Your task to perform on an android device: turn on bluetooth scan Image 0: 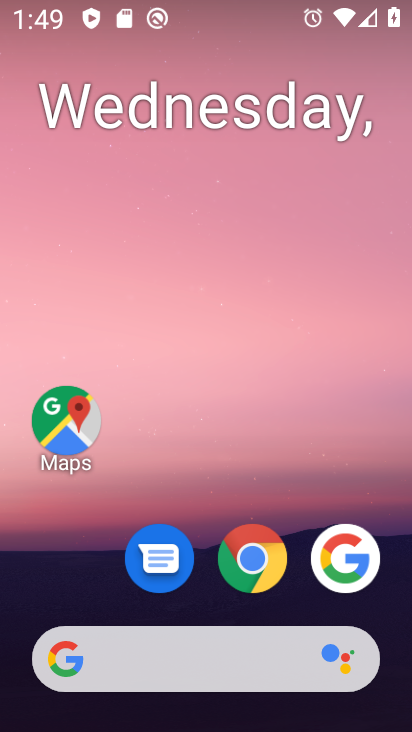
Step 0: drag from (383, 506) to (250, 32)
Your task to perform on an android device: turn on bluetooth scan Image 1: 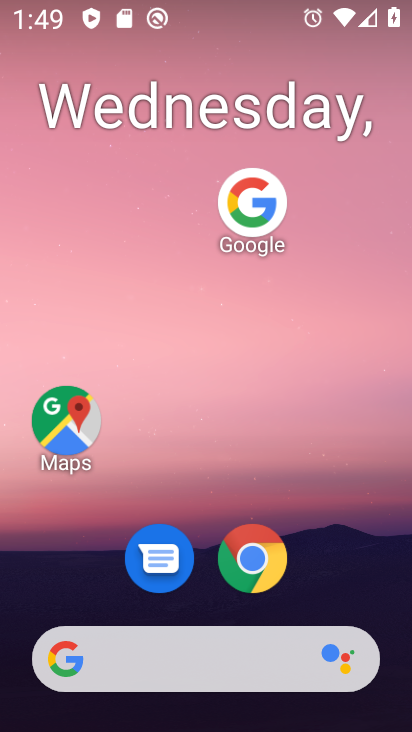
Step 1: drag from (390, 557) to (358, 60)
Your task to perform on an android device: turn on bluetooth scan Image 2: 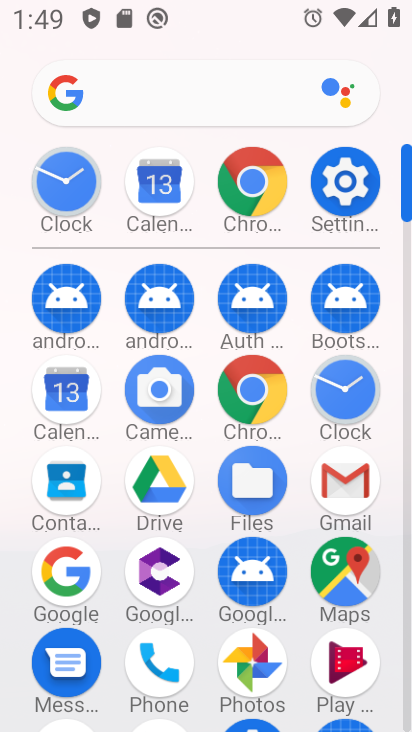
Step 2: click (335, 195)
Your task to perform on an android device: turn on bluetooth scan Image 3: 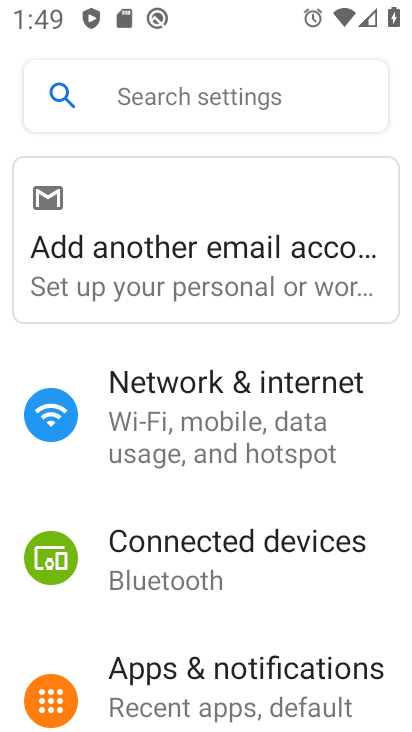
Step 3: drag from (400, 611) to (378, 339)
Your task to perform on an android device: turn on bluetooth scan Image 4: 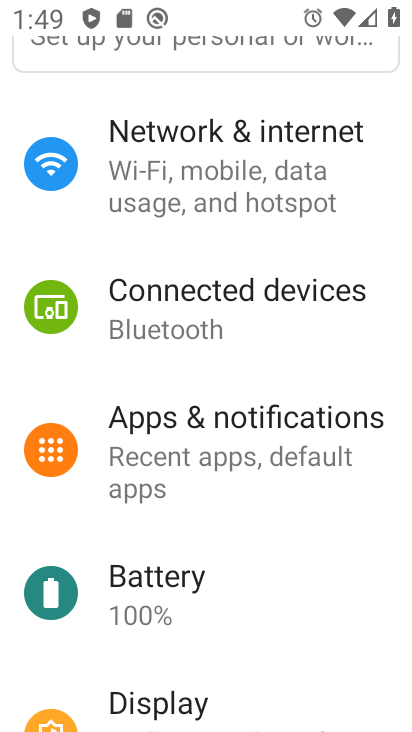
Step 4: drag from (396, 708) to (322, 245)
Your task to perform on an android device: turn on bluetooth scan Image 5: 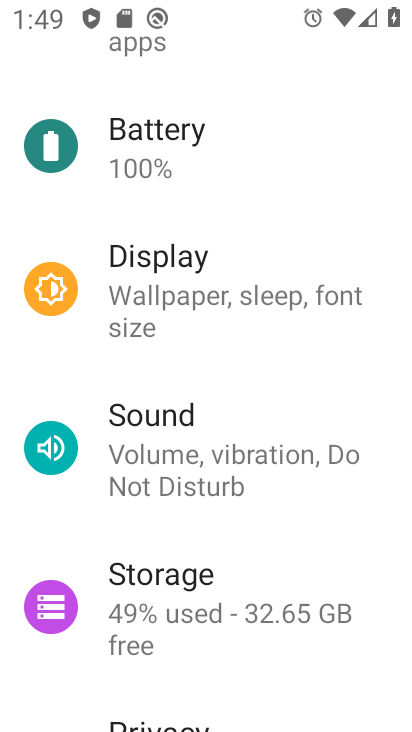
Step 5: drag from (378, 558) to (345, 181)
Your task to perform on an android device: turn on bluetooth scan Image 6: 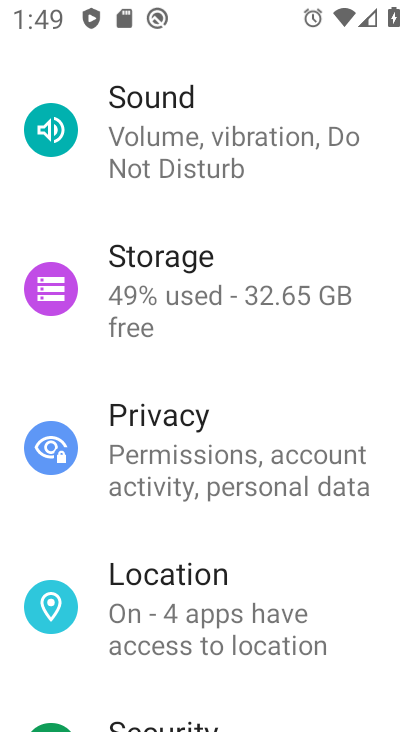
Step 6: click (337, 616)
Your task to perform on an android device: turn on bluetooth scan Image 7: 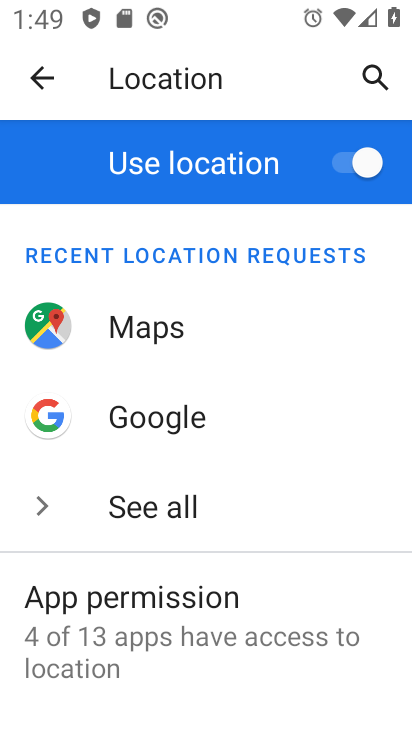
Step 7: drag from (300, 653) to (243, 279)
Your task to perform on an android device: turn on bluetooth scan Image 8: 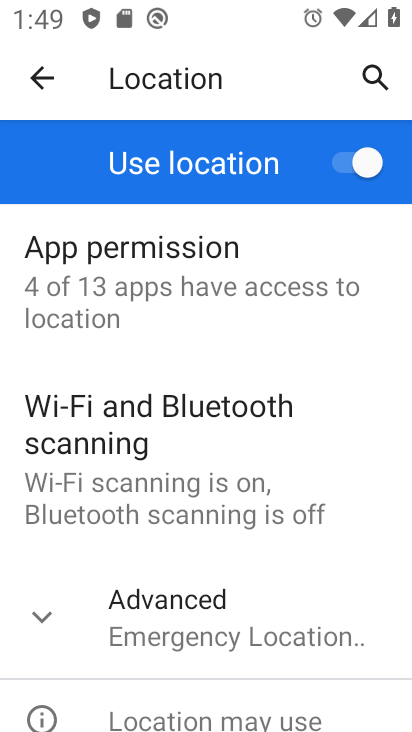
Step 8: click (254, 432)
Your task to perform on an android device: turn on bluetooth scan Image 9: 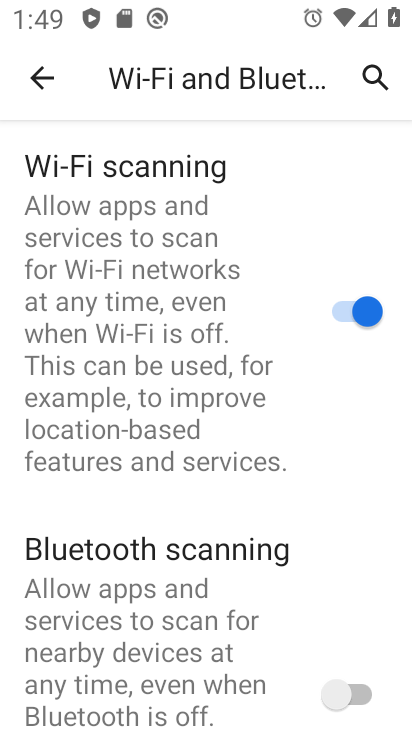
Step 9: click (356, 688)
Your task to perform on an android device: turn on bluetooth scan Image 10: 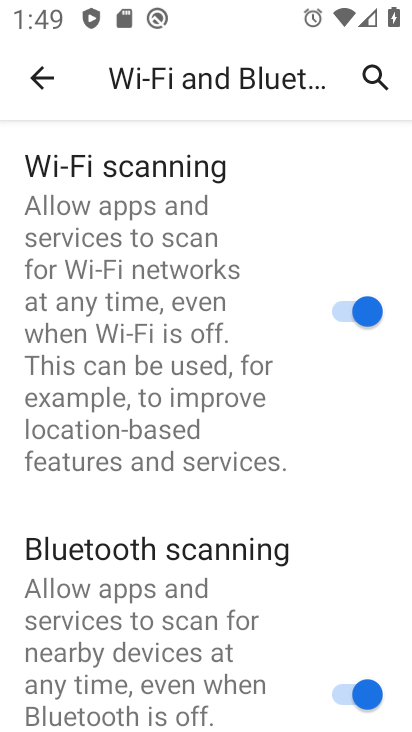
Step 10: task complete